Your task to perform on an android device: see tabs open on other devices in the chrome app Image 0: 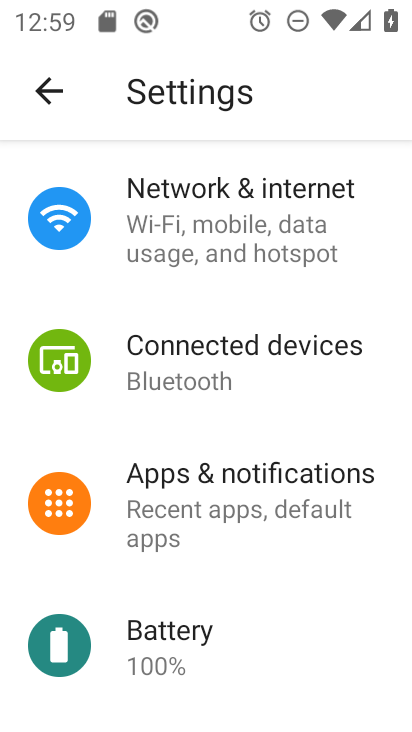
Step 0: press home button
Your task to perform on an android device: see tabs open on other devices in the chrome app Image 1: 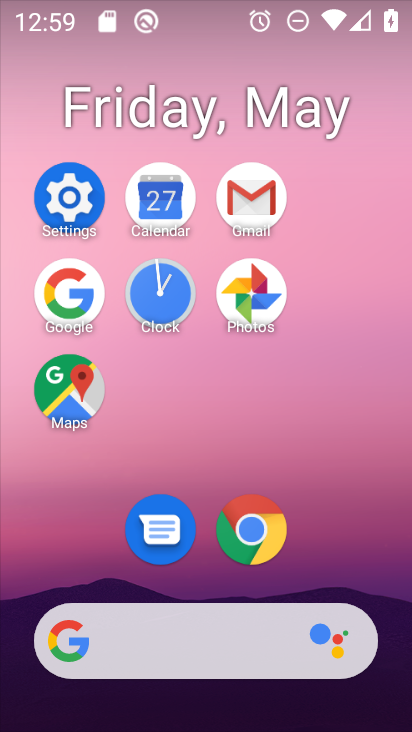
Step 1: click (239, 539)
Your task to perform on an android device: see tabs open on other devices in the chrome app Image 2: 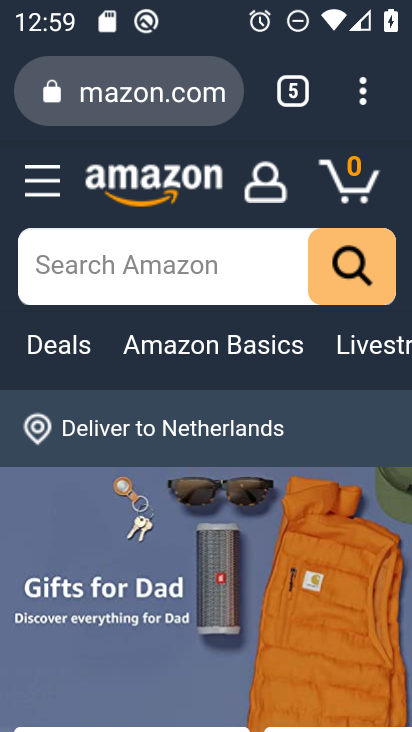
Step 2: click (366, 99)
Your task to perform on an android device: see tabs open on other devices in the chrome app Image 3: 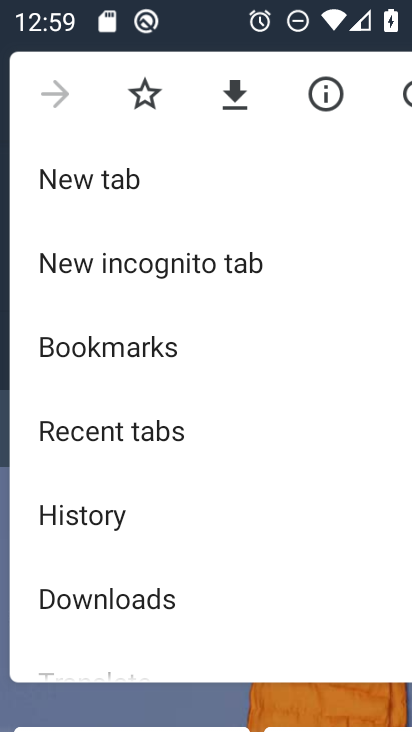
Step 3: click (163, 433)
Your task to perform on an android device: see tabs open on other devices in the chrome app Image 4: 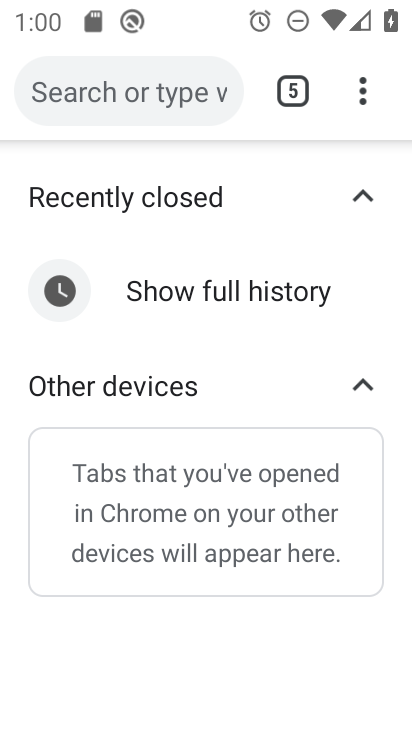
Step 4: task complete